Your task to perform on an android device: Open maps Image 0: 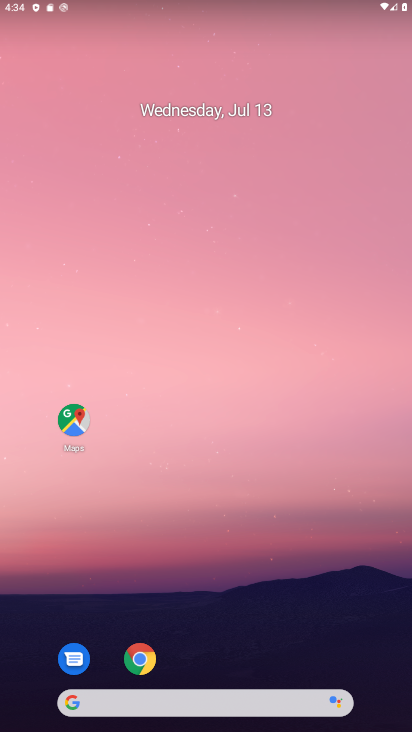
Step 0: click (72, 421)
Your task to perform on an android device: Open maps Image 1: 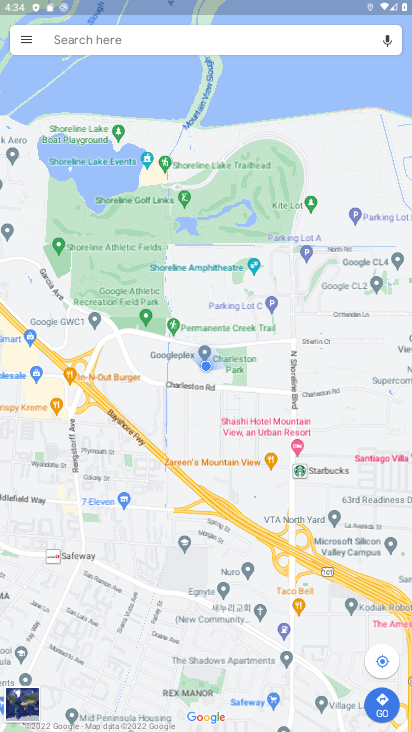
Step 1: task complete